Your task to perform on an android device: Open eBay Image 0: 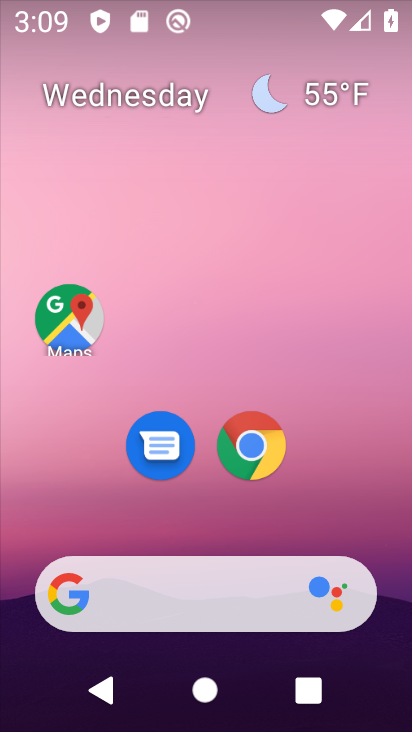
Step 0: click (243, 454)
Your task to perform on an android device: Open eBay Image 1: 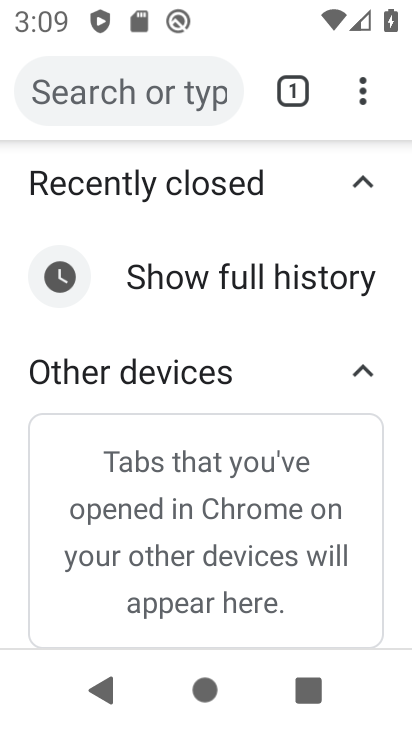
Step 1: click (284, 86)
Your task to perform on an android device: Open eBay Image 2: 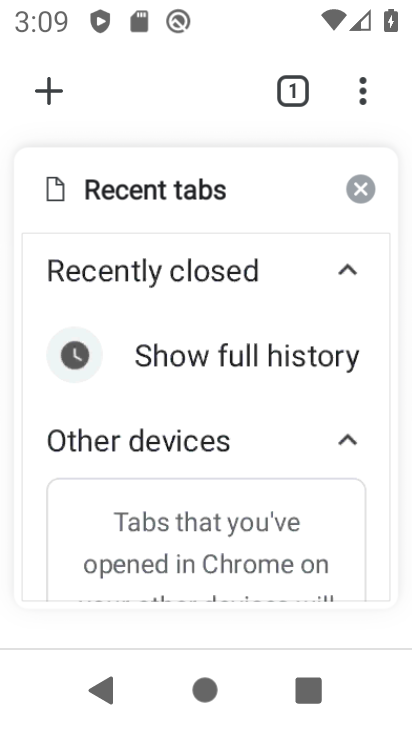
Step 2: click (55, 90)
Your task to perform on an android device: Open eBay Image 3: 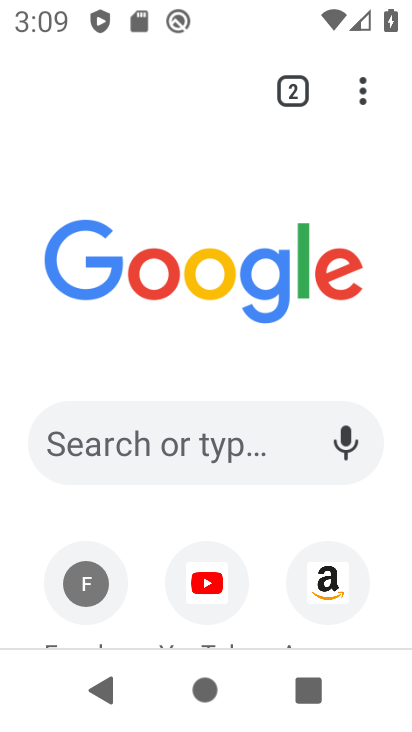
Step 3: drag from (263, 529) to (267, 249)
Your task to perform on an android device: Open eBay Image 4: 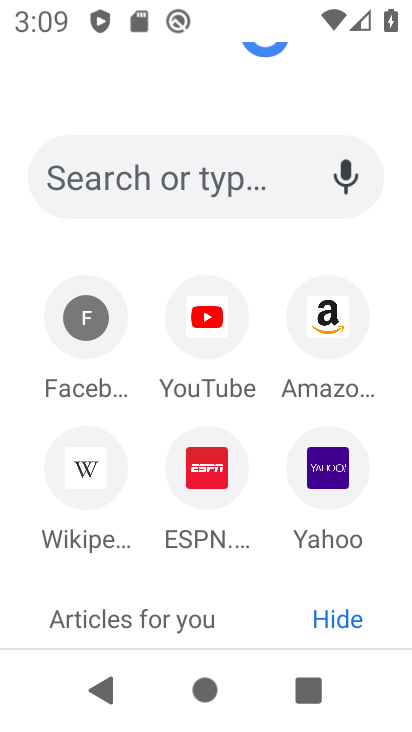
Step 4: click (175, 159)
Your task to perform on an android device: Open eBay Image 5: 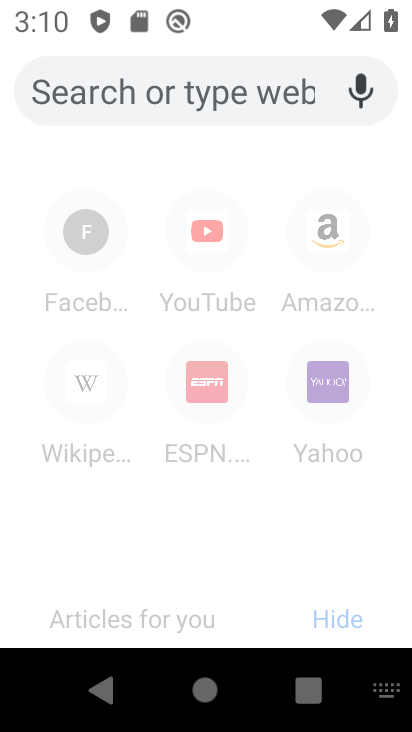
Step 5: type "ebay.com"
Your task to perform on an android device: Open eBay Image 6: 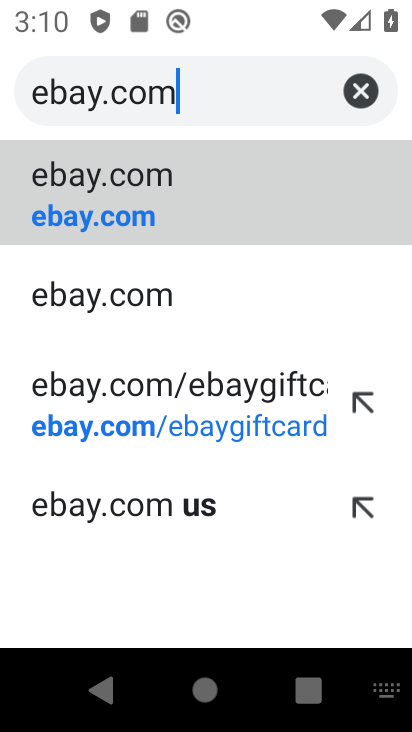
Step 6: click (123, 225)
Your task to perform on an android device: Open eBay Image 7: 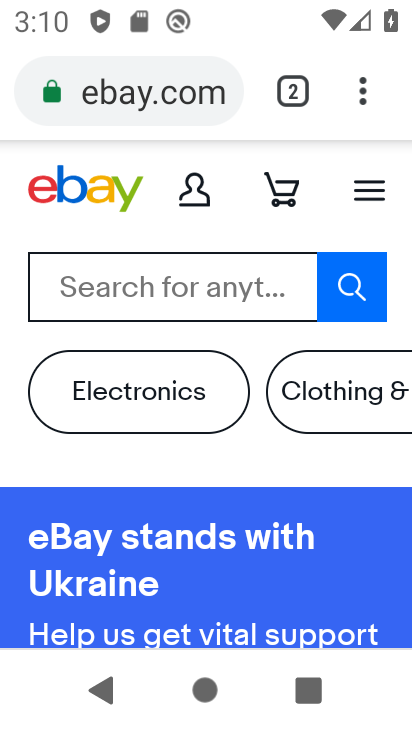
Step 7: task complete